Your task to perform on an android device: toggle notification dots Image 0: 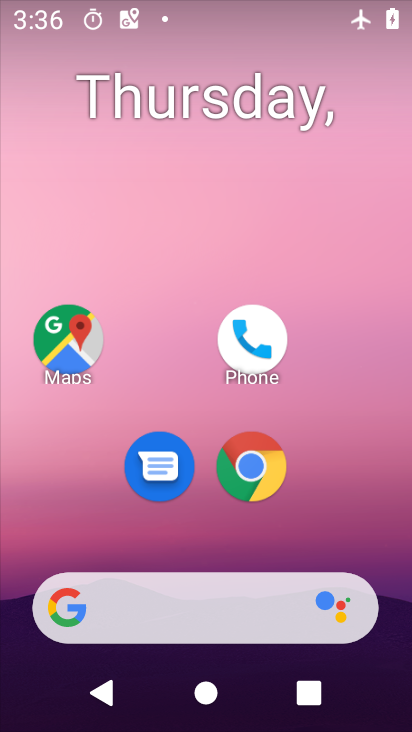
Step 0: drag from (189, 571) to (223, 190)
Your task to perform on an android device: toggle notification dots Image 1: 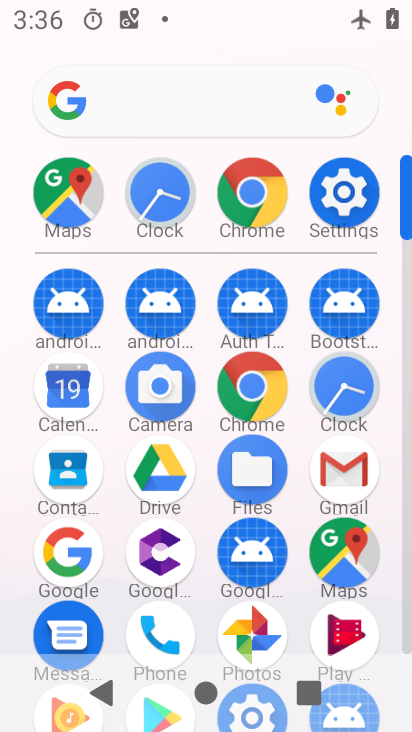
Step 1: click (343, 202)
Your task to perform on an android device: toggle notification dots Image 2: 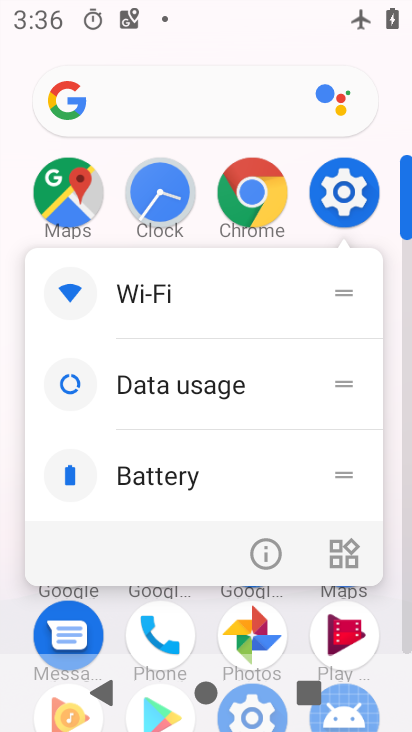
Step 2: click (259, 535)
Your task to perform on an android device: toggle notification dots Image 3: 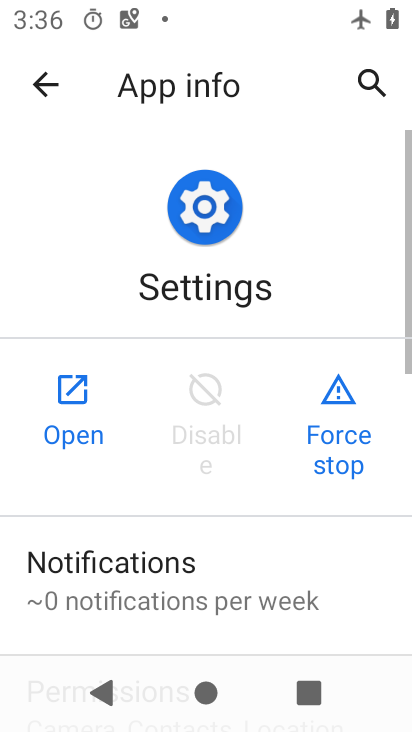
Step 3: click (87, 392)
Your task to perform on an android device: toggle notification dots Image 4: 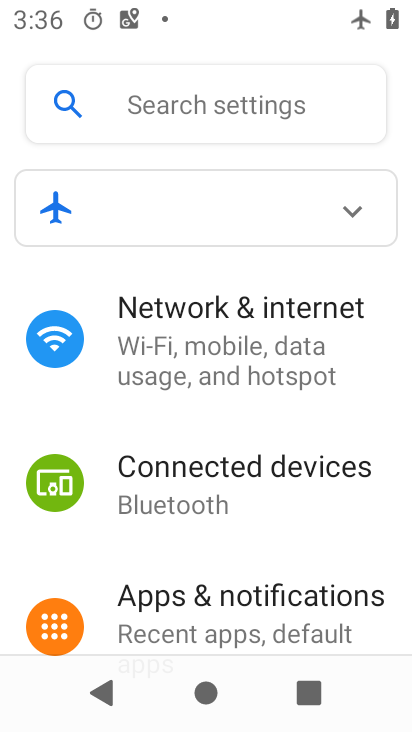
Step 4: drag from (240, 584) to (317, 255)
Your task to perform on an android device: toggle notification dots Image 5: 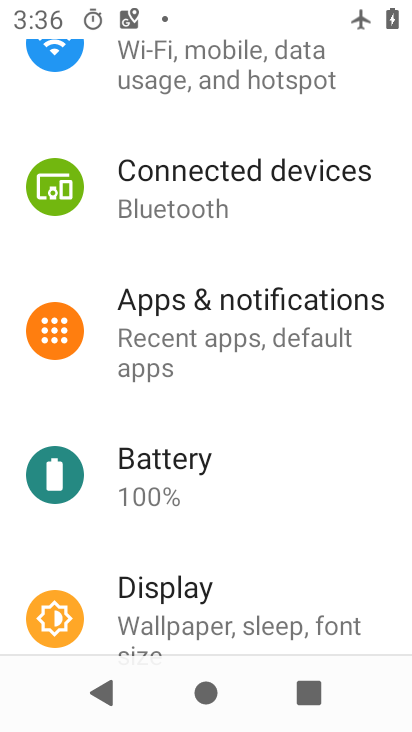
Step 5: click (237, 332)
Your task to perform on an android device: toggle notification dots Image 6: 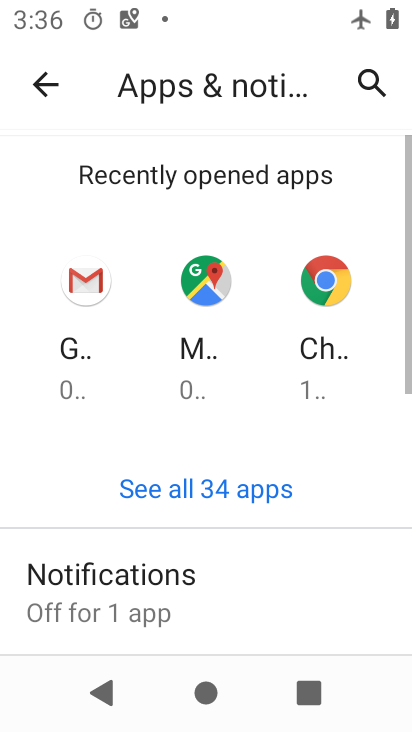
Step 6: click (167, 565)
Your task to perform on an android device: toggle notification dots Image 7: 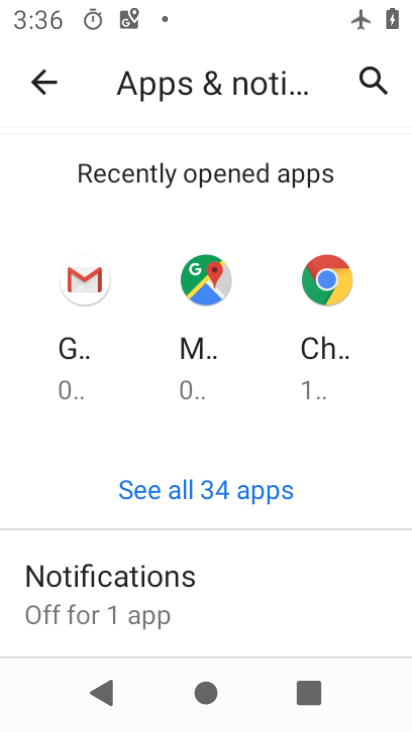
Step 7: drag from (170, 564) to (361, 39)
Your task to perform on an android device: toggle notification dots Image 8: 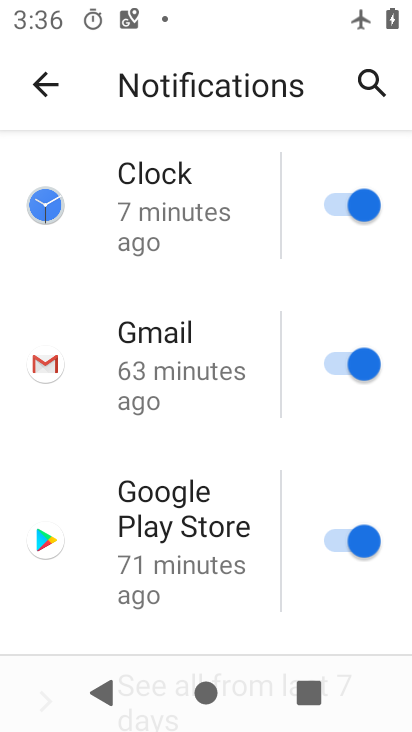
Step 8: drag from (234, 584) to (327, 99)
Your task to perform on an android device: toggle notification dots Image 9: 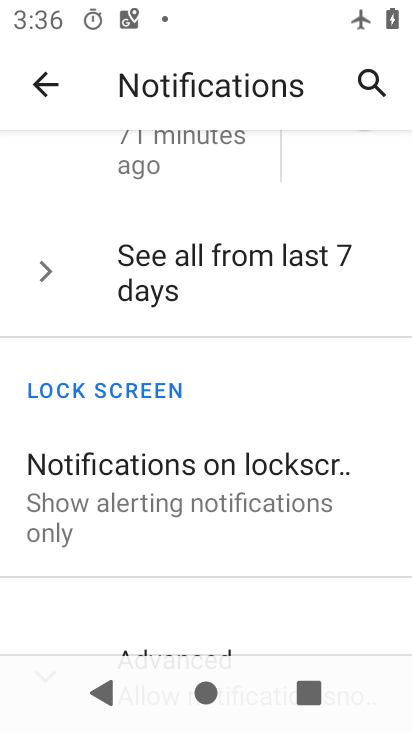
Step 9: drag from (162, 490) to (351, 67)
Your task to perform on an android device: toggle notification dots Image 10: 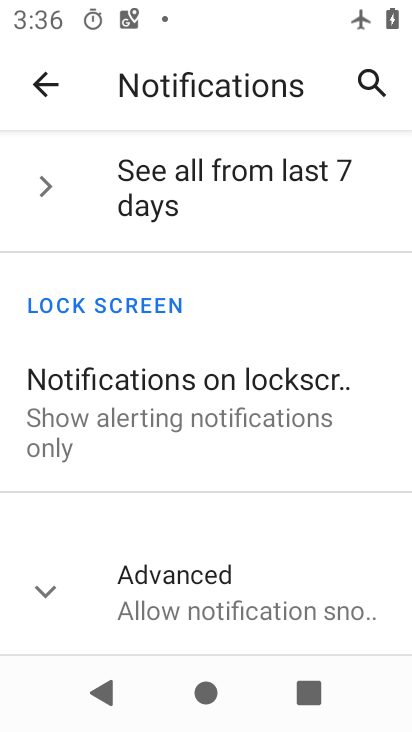
Step 10: click (214, 535)
Your task to perform on an android device: toggle notification dots Image 11: 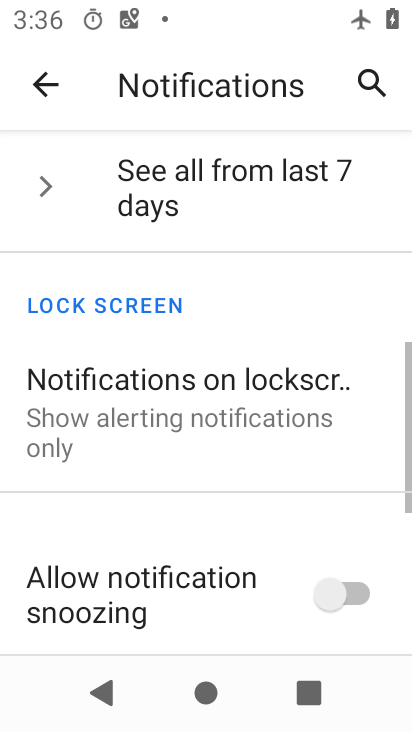
Step 11: drag from (202, 577) to (325, 113)
Your task to perform on an android device: toggle notification dots Image 12: 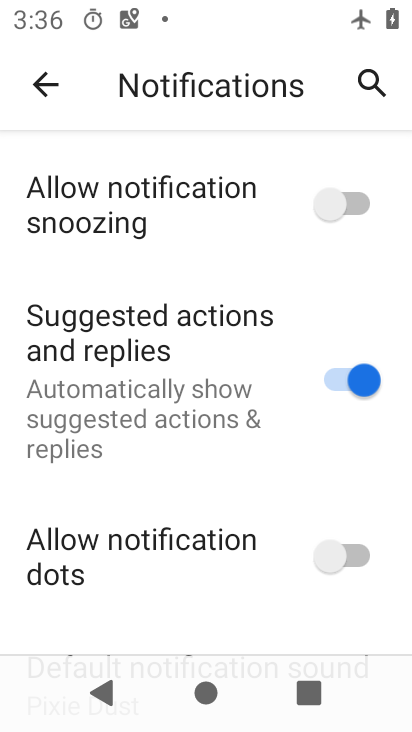
Step 12: click (325, 561)
Your task to perform on an android device: toggle notification dots Image 13: 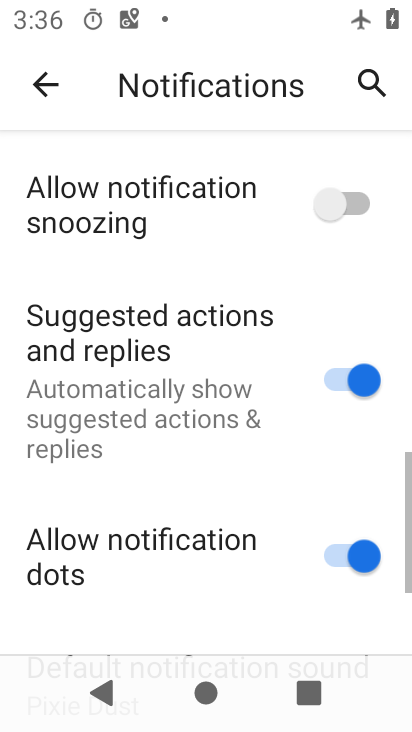
Step 13: task complete